Your task to perform on an android device: What's the weather going to be tomorrow? Image 0: 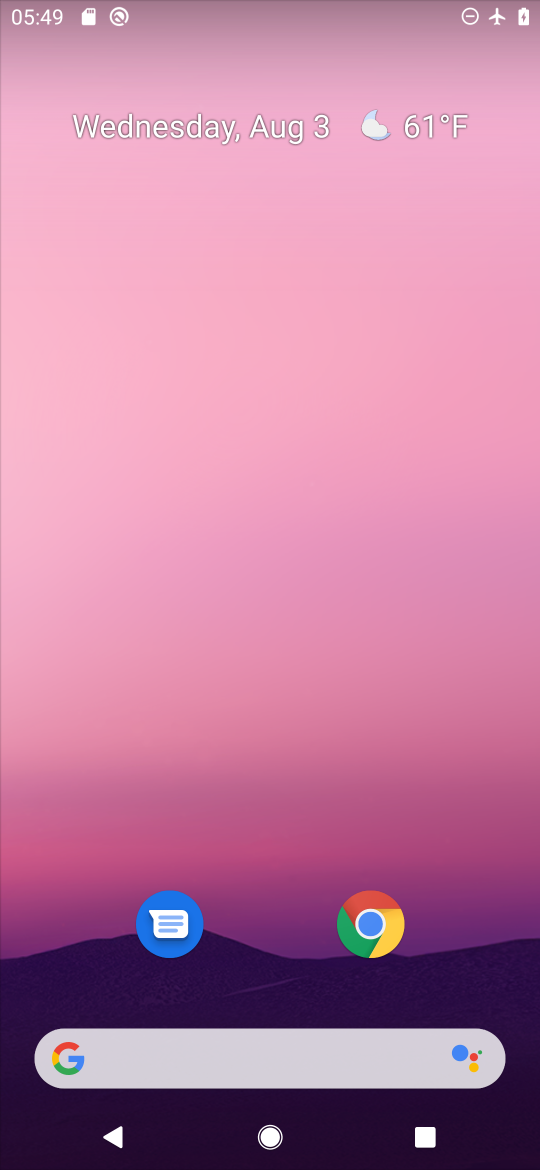
Step 0: drag from (263, 967) to (260, 117)
Your task to perform on an android device: What's the weather going to be tomorrow? Image 1: 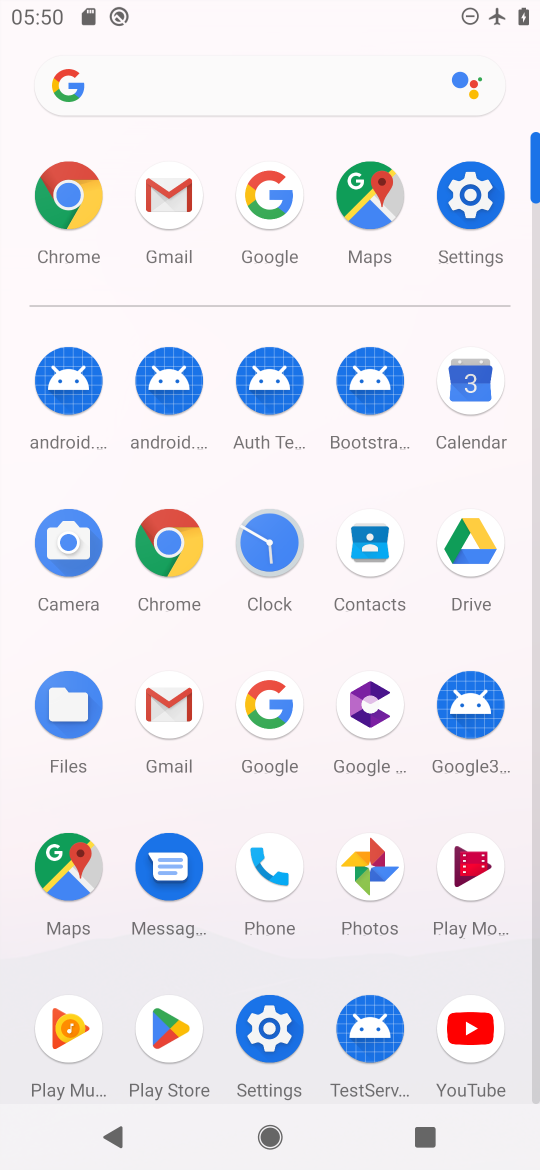
Step 1: click (262, 703)
Your task to perform on an android device: What's the weather going to be tomorrow? Image 2: 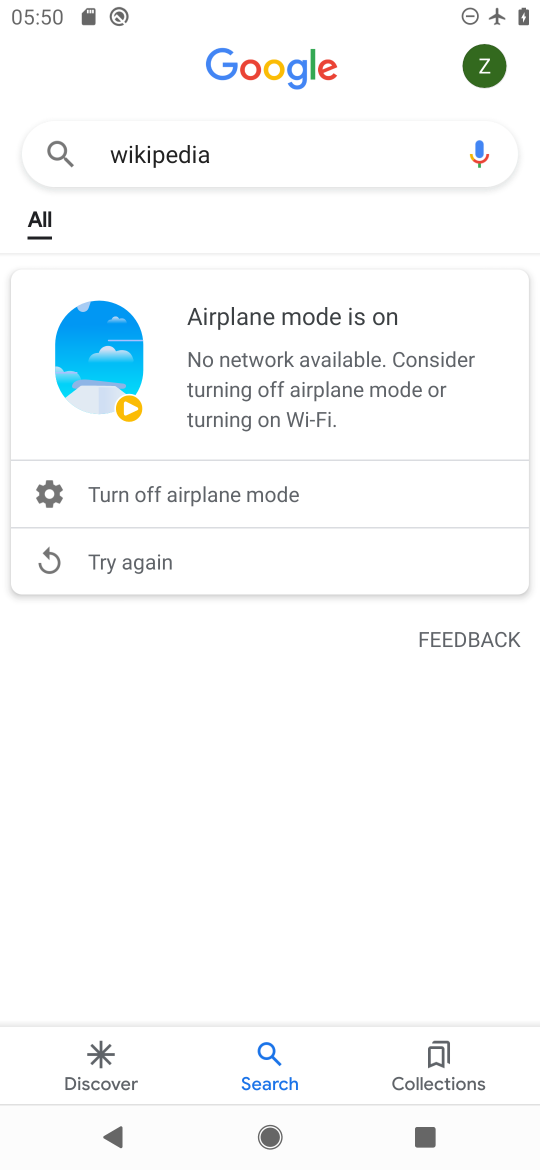
Step 2: click (262, 148)
Your task to perform on an android device: What's the weather going to be tomorrow? Image 3: 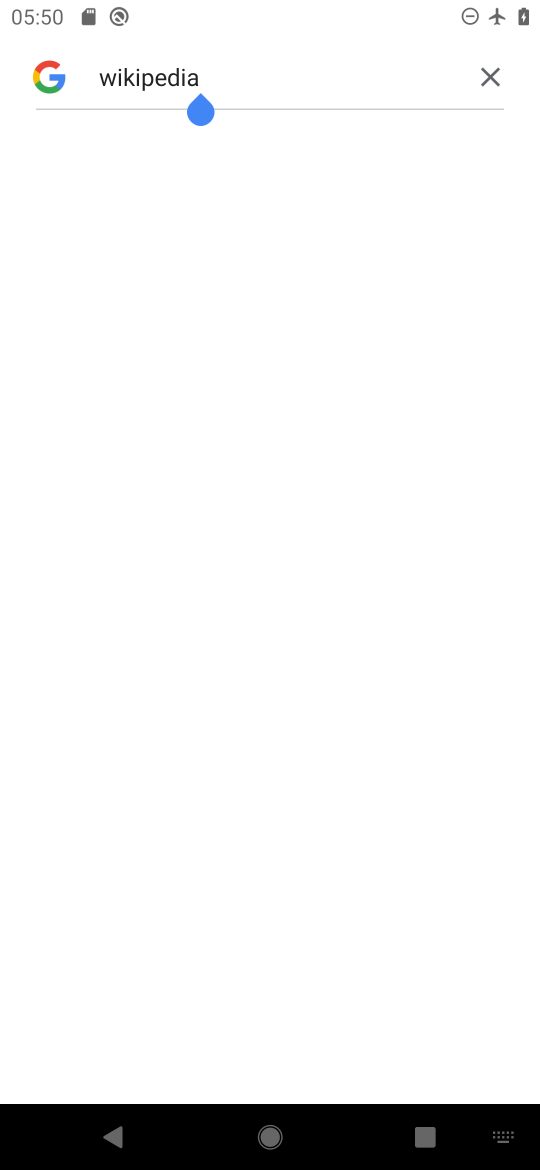
Step 3: click (473, 73)
Your task to perform on an android device: What's the weather going to be tomorrow? Image 4: 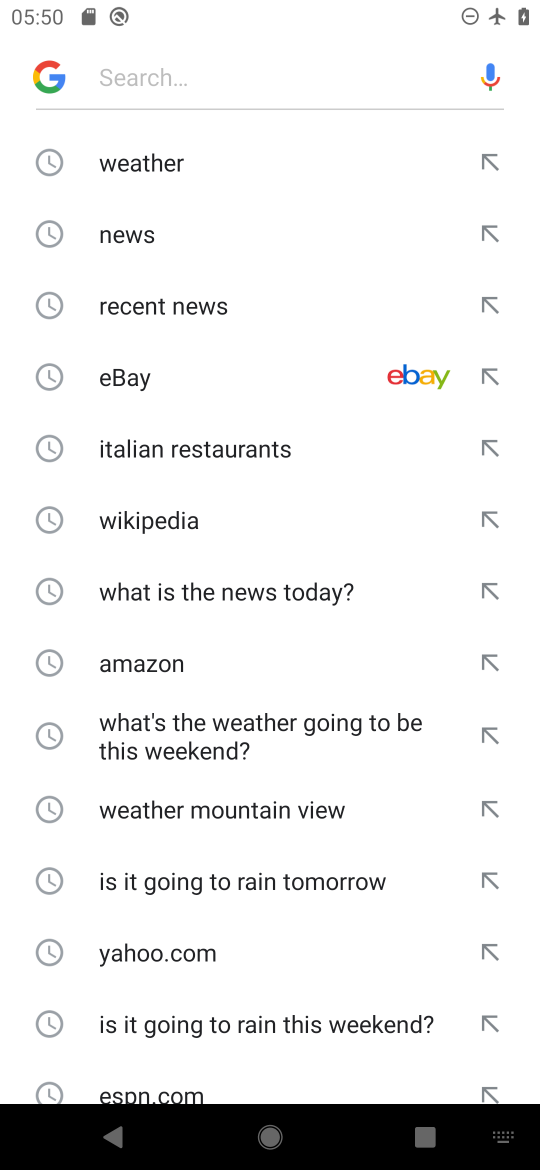
Step 4: click (158, 179)
Your task to perform on an android device: What's the weather going to be tomorrow? Image 5: 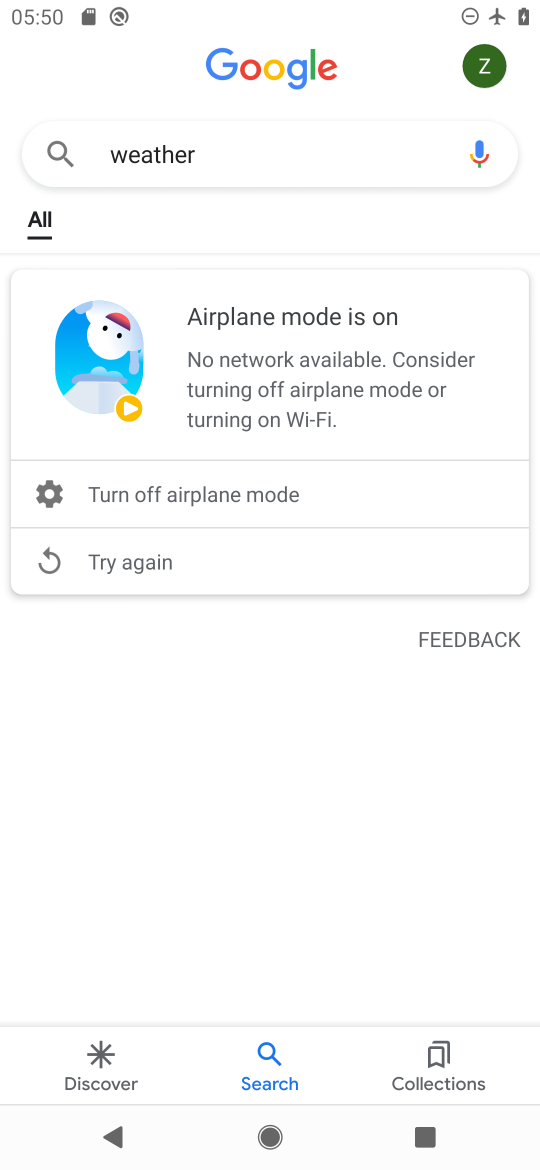
Step 5: task complete